Your task to perform on an android device: Open settings on Google Maps Image 0: 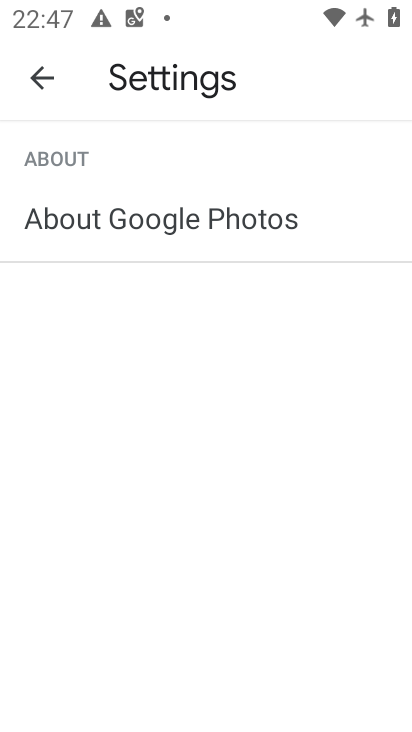
Step 0: press home button
Your task to perform on an android device: Open settings on Google Maps Image 1: 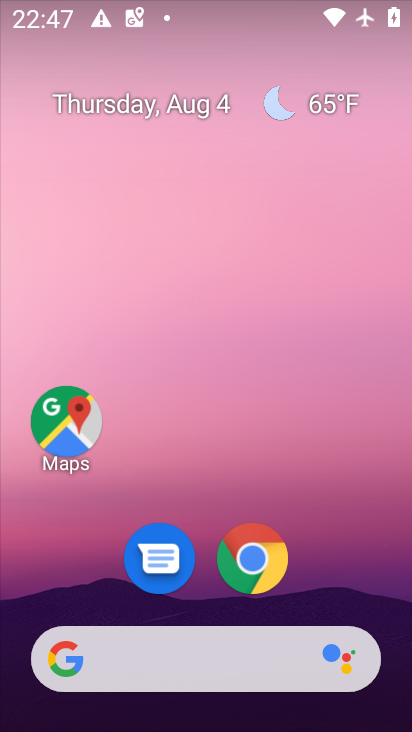
Step 1: drag from (369, 549) to (346, 159)
Your task to perform on an android device: Open settings on Google Maps Image 2: 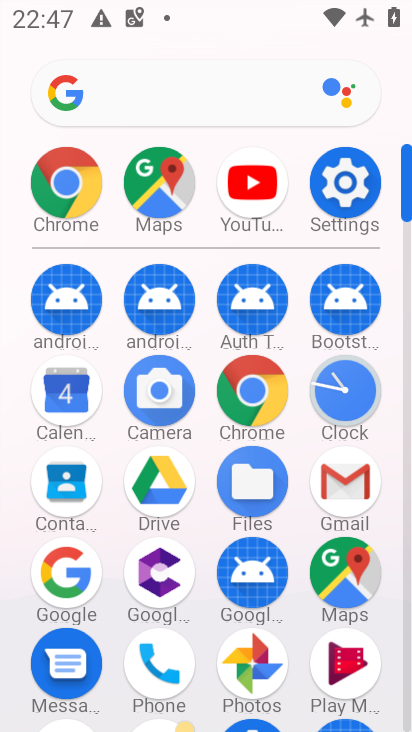
Step 2: click (335, 571)
Your task to perform on an android device: Open settings on Google Maps Image 3: 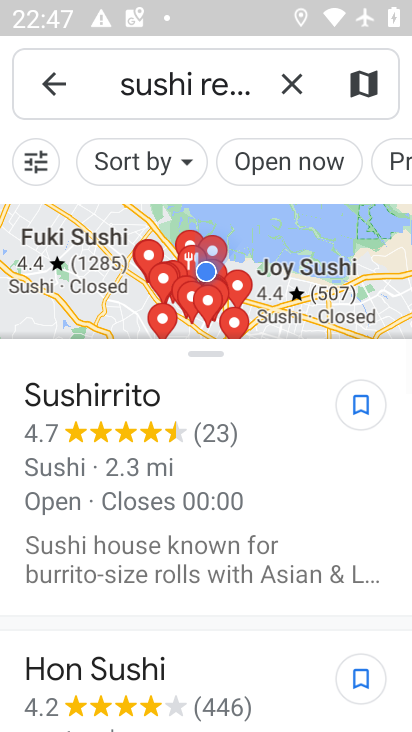
Step 3: click (56, 85)
Your task to perform on an android device: Open settings on Google Maps Image 4: 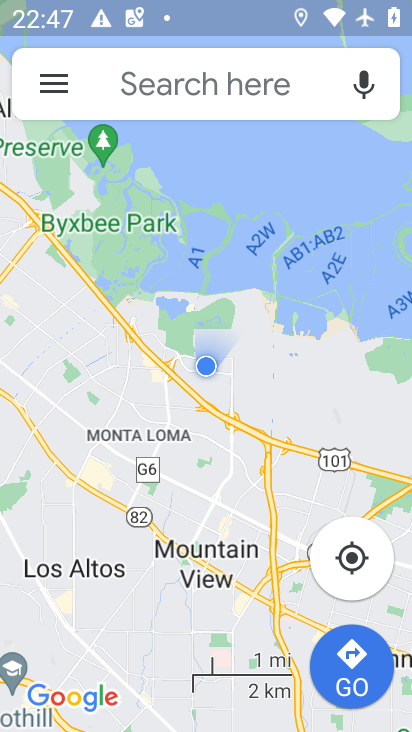
Step 4: click (56, 84)
Your task to perform on an android device: Open settings on Google Maps Image 5: 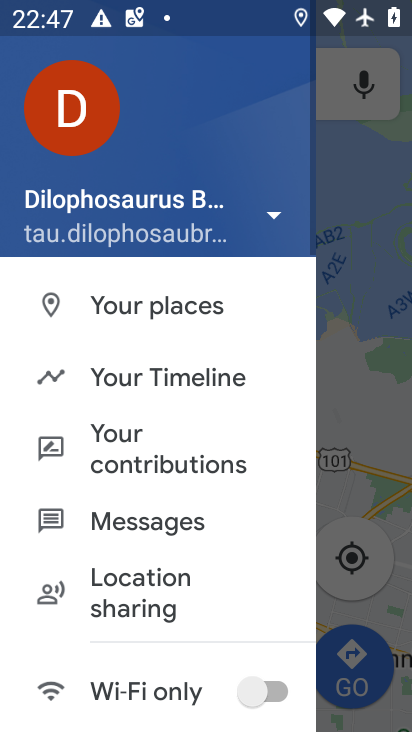
Step 5: drag from (180, 517) to (233, 90)
Your task to perform on an android device: Open settings on Google Maps Image 6: 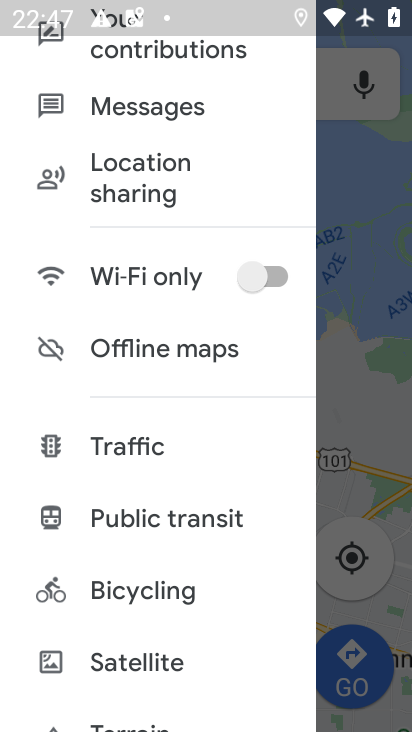
Step 6: drag from (164, 458) to (235, 114)
Your task to perform on an android device: Open settings on Google Maps Image 7: 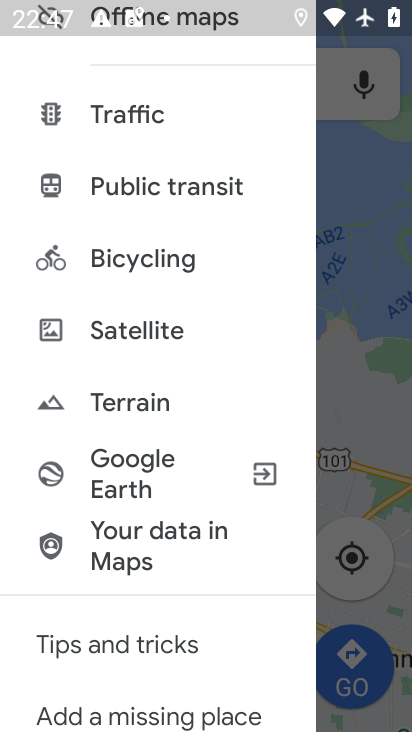
Step 7: drag from (174, 569) to (207, 197)
Your task to perform on an android device: Open settings on Google Maps Image 8: 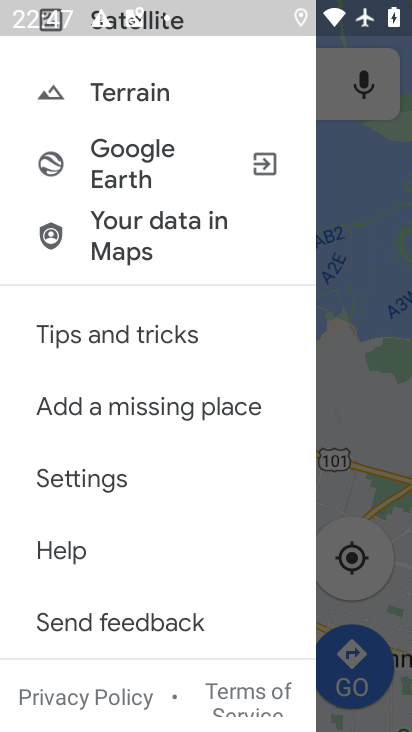
Step 8: click (102, 480)
Your task to perform on an android device: Open settings on Google Maps Image 9: 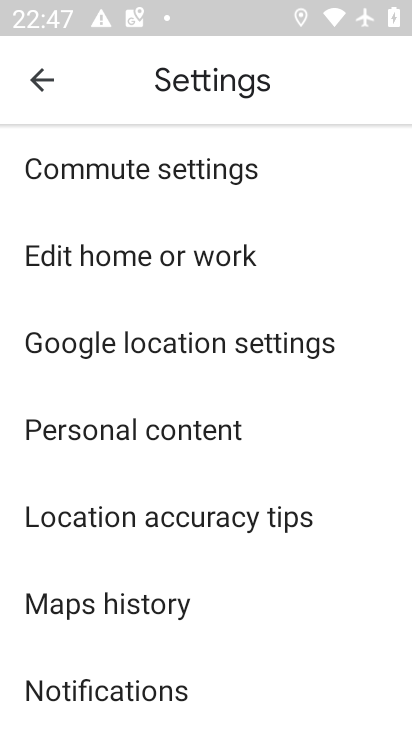
Step 9: task complete